Your task to perform on an android device: toggle wifi Image 0: 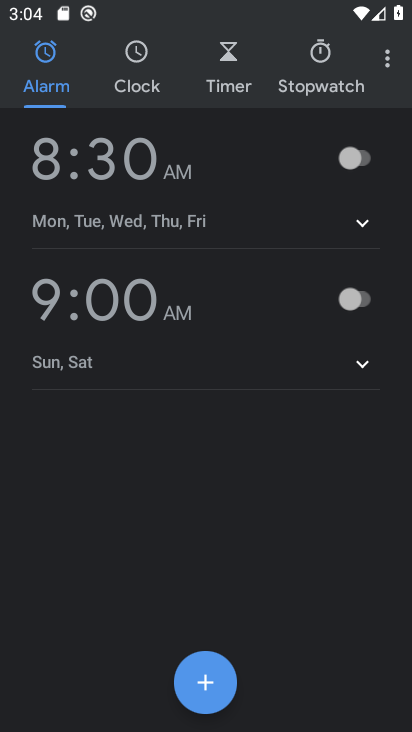
Step 0: press home button
Your task to perform on an android device: toggle wifi Image 1: 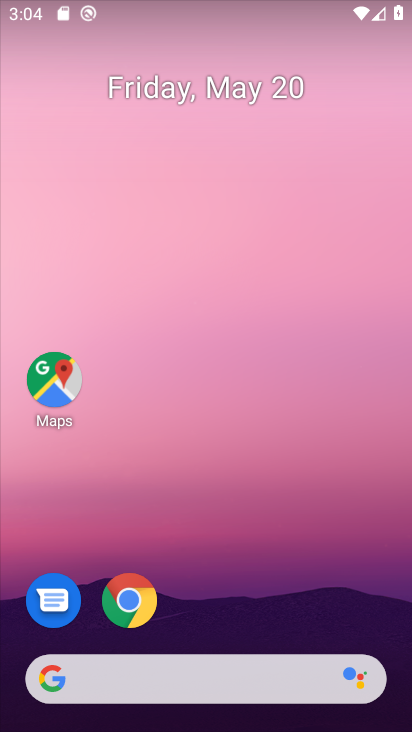
Step 1: drag from (324, 564) to (330, 162)
Your task to perform on an android device: toggle wifi Image 2: 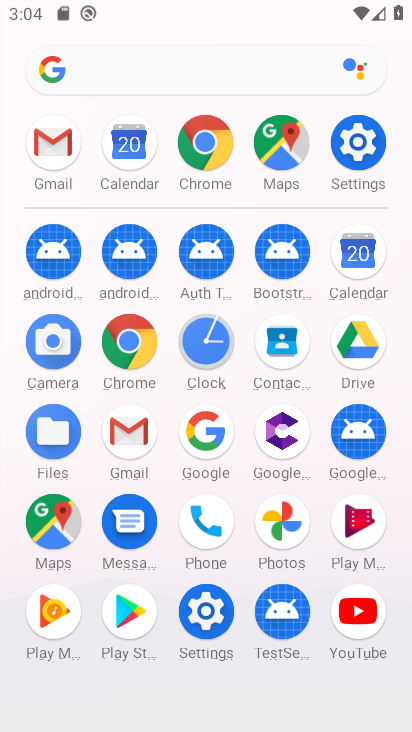
Step 2: click (366, 156)
Your task to perform on an android device: toggle wifi Image 3: 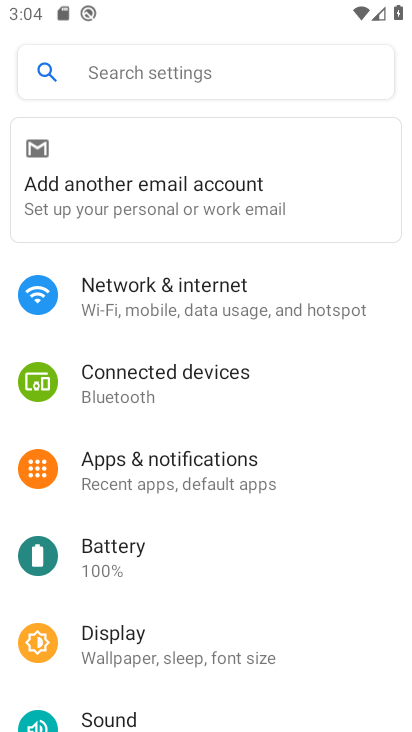
Step 3: drag from (341, 568) to (345, 423)
Your task to perform on an android device: toggle wifi Image 4: 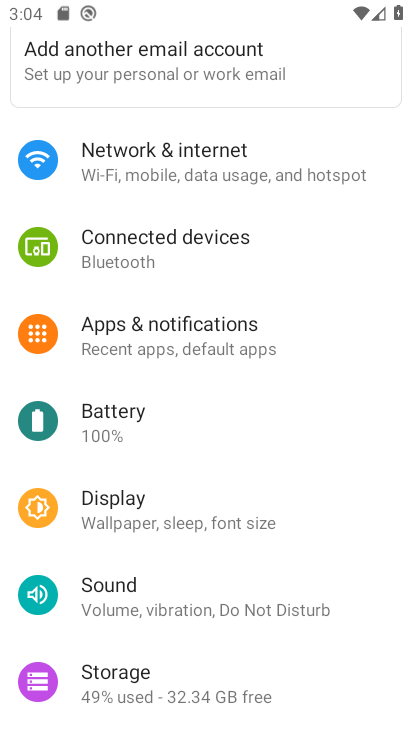
Step 4: drag from (350, 626) to (355, 490)
Your task to perform on an android device: toggle wifi Image 5: 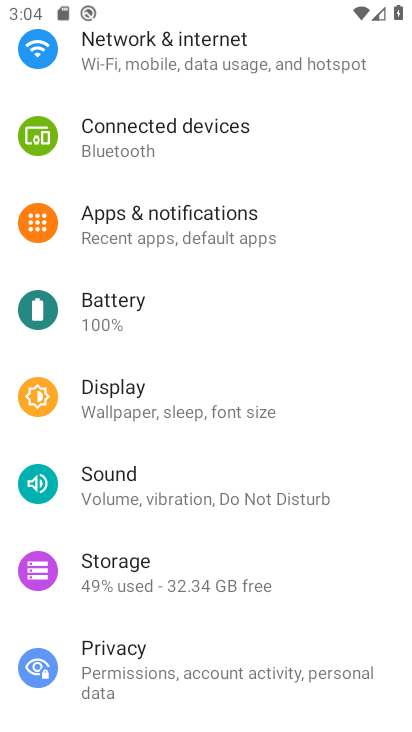
Step 5: drag from (345, 623) to (338, 489)
Your task to perform on an android device: toggle wifi Image 6: 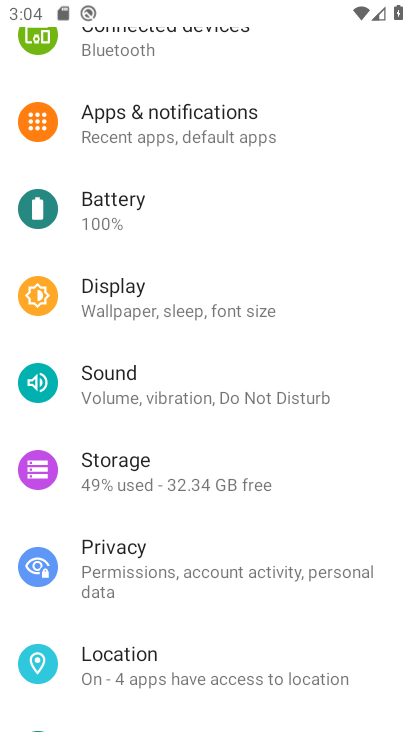
Step 6: drag from (336, 632) to (333, 517)
Your task to perform on an android device: toggle wifi Image 7: 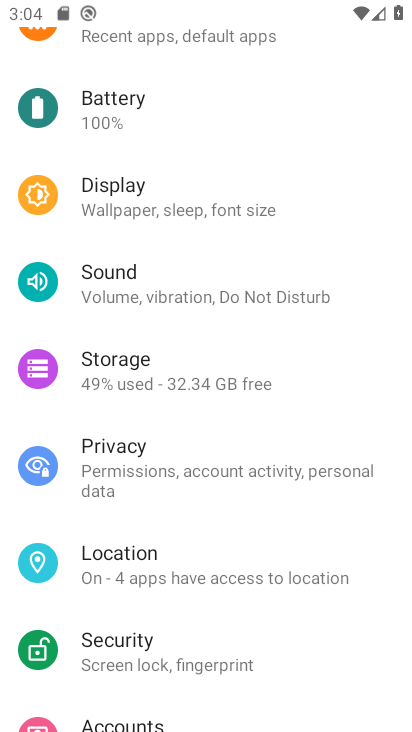
Step 7: drag from (343, 666) to (336, 528)
Your task to perform on an android device: toggle wifi Image 8: 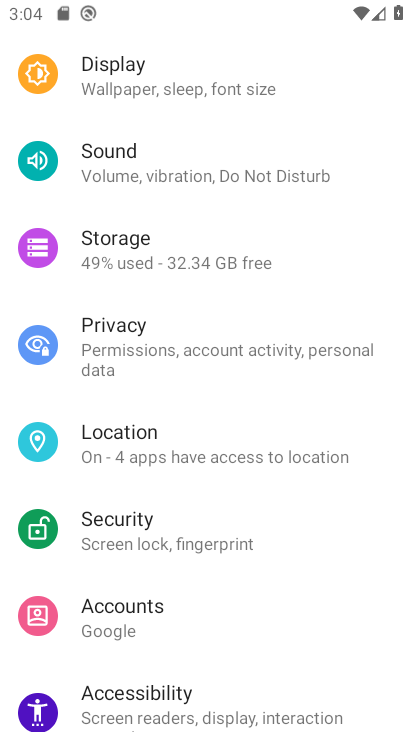
Step 8: drag from (351, 657) to (349, 544)
Your task to perform on an android device: toggle wifi Image 9: 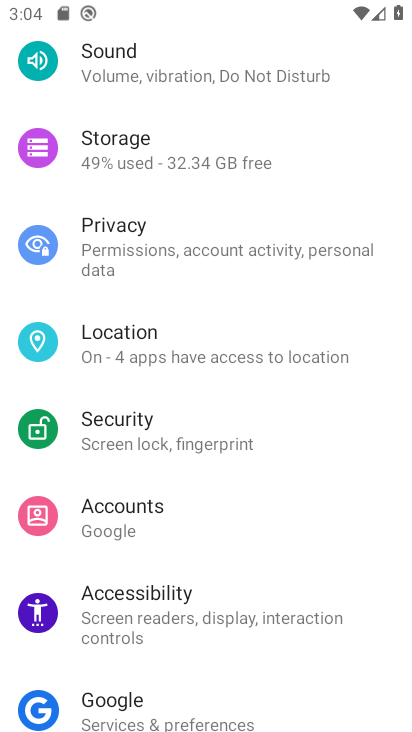
Step 9: drag from (355, 675) to (349, 540)
Your task to perform on an android device: toggle wifi Image 10: 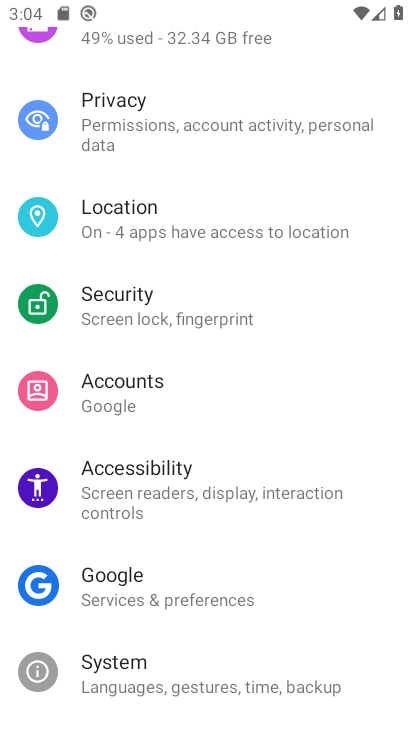
Step 10: drag from (348, 672) to (349, 541)
Your task to perform on an android device: toggle wifi Image 11: 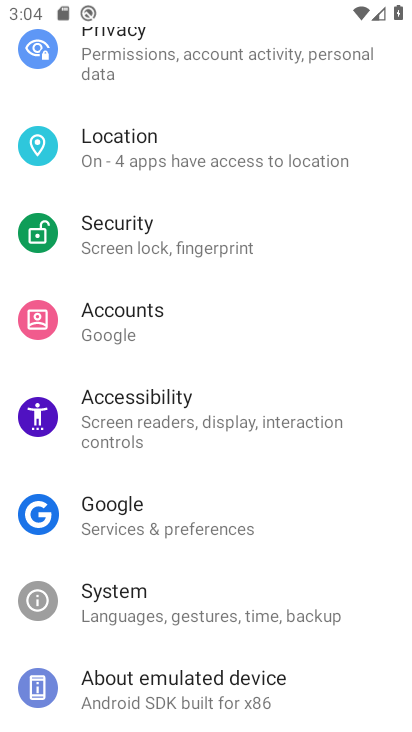
Step 11: drag from (344, 489) to (353, 596)
Your task to perform on an android device: toggle wifi Image 12: 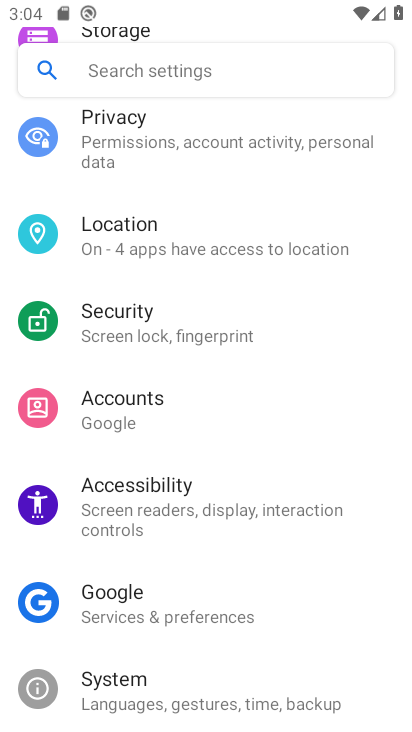
Step 12: drag from (351, 435) to (349, 570)
Your task to perform on an android device: toggle wifi Image 13: 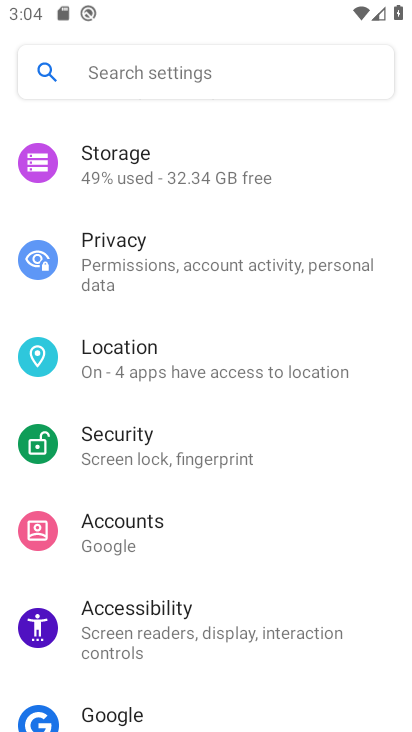
Step 13: drag from (349, 421) to (354, 536)
Your task to perform on an android device: toggle wifi Image 14: 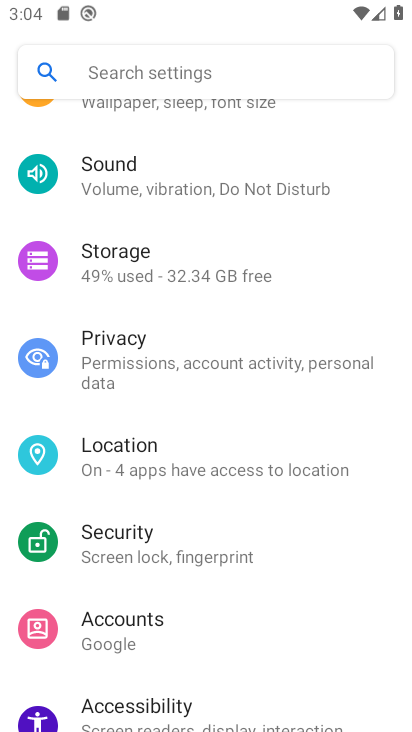
Step 14: drag from (359, 403) to (363, 492)
Your task to perform on an android device: toggle wifi Image 15: 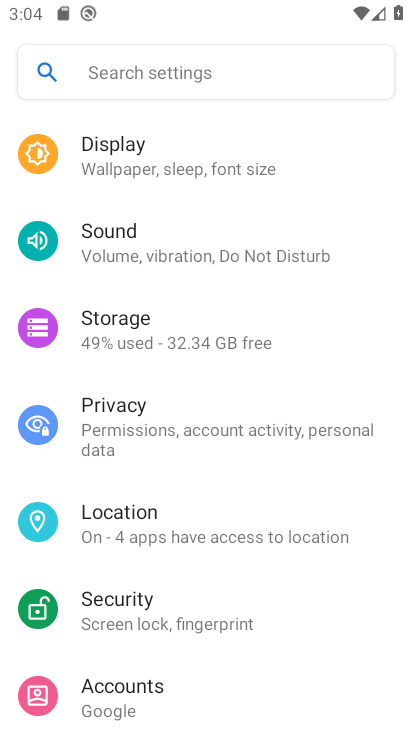
Step 15: drag from (363, 352) to (361, 469)
Your task to perform on an android device: toggle wifi Image 16: 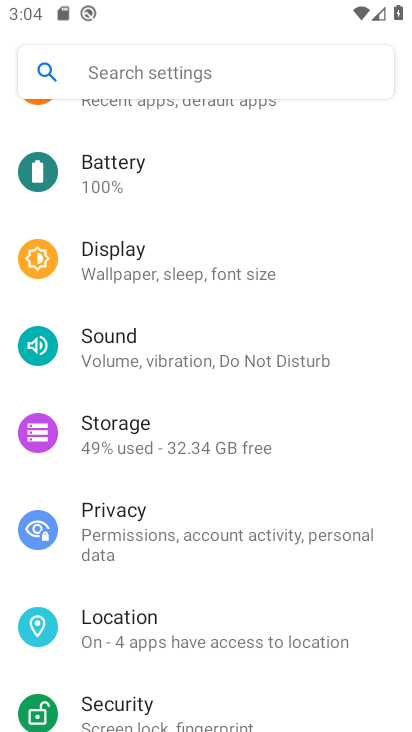
Step 16: drag from (350, 327) to (350, 436)
Your task to perform on an android device: toggle wifi Image 17: 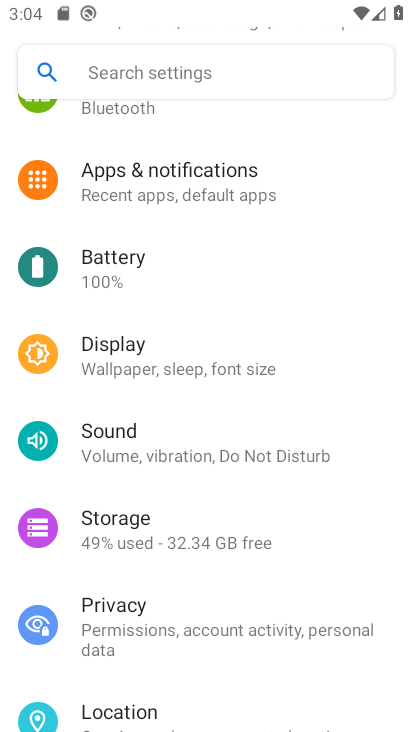
Step 17: drag from (337, 287) to (342, 394)
Your task to perform on an android device: toggle wifi Image 18: 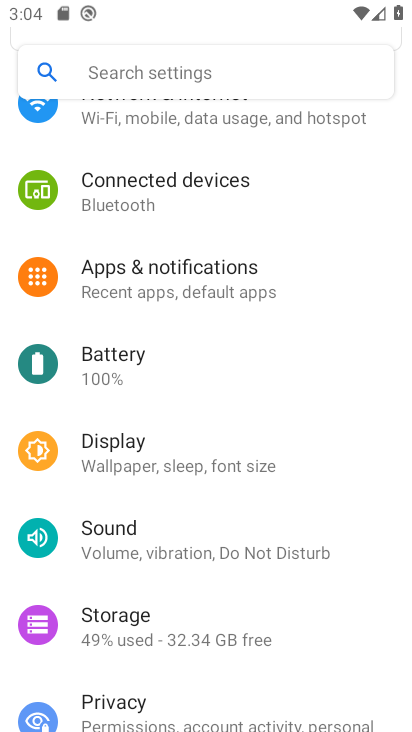
Step 18: drag from (335, 283) to (334, 390)
Your task to perform on an android device: toggle wifi Image 19: 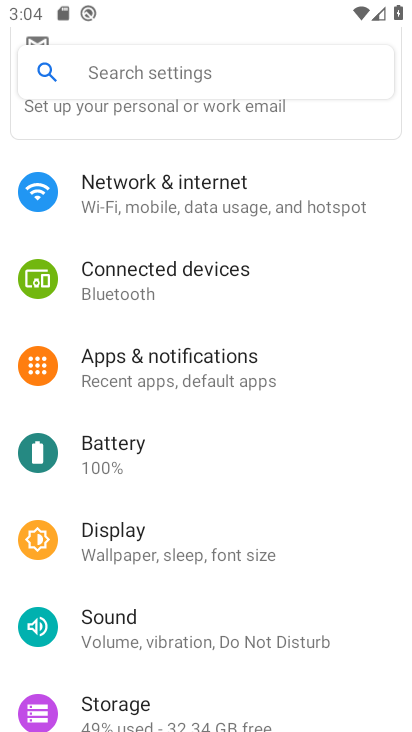
Step 19: drag from (327, 271) to (325, 386)
Your task to perform on an android device: toggle wifi Image 20: 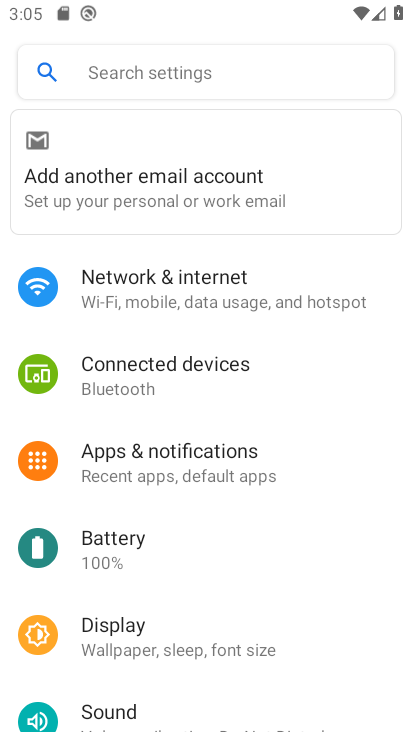
Step 20: drag from (312, 261) to (310, 386)
Your task to perform on an android device: toggle wifi Image 21: 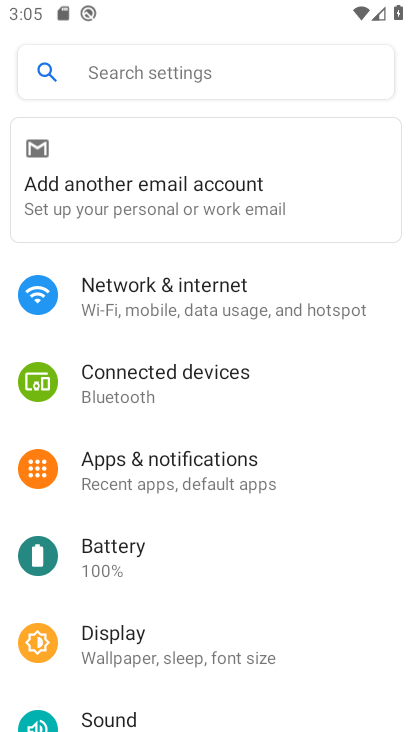
Step 21: click (248, 298)
Your task to perform on an android device: toggle wifi Image 22: 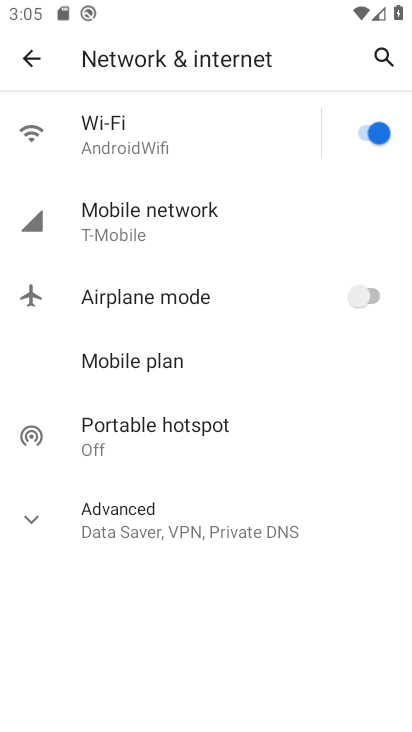
Step 22: click (379, 131)
Your task to perform on an android device: toggle wifi Image 23: 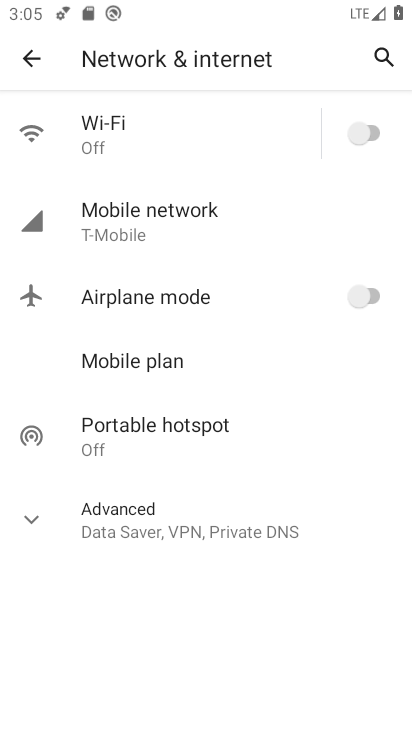
Step 23: task complete